Your task to perform on an android device: clear all cookies in the chrome app Image 0: 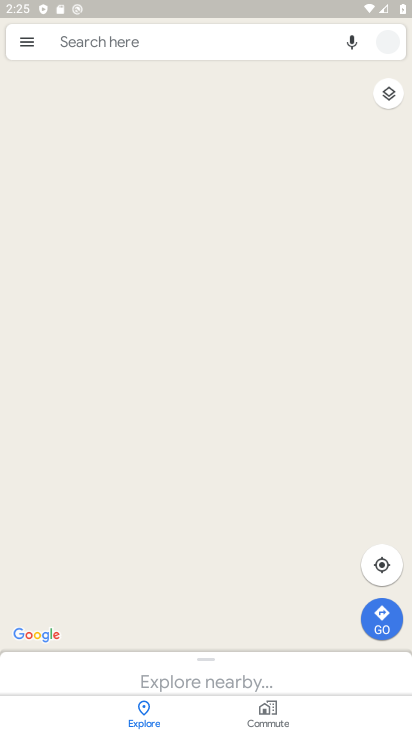
Step 0: drag from (267, 704) to (113, 112)
Your task to perform on an android device: clear all cookies in the chrome app Image 1: 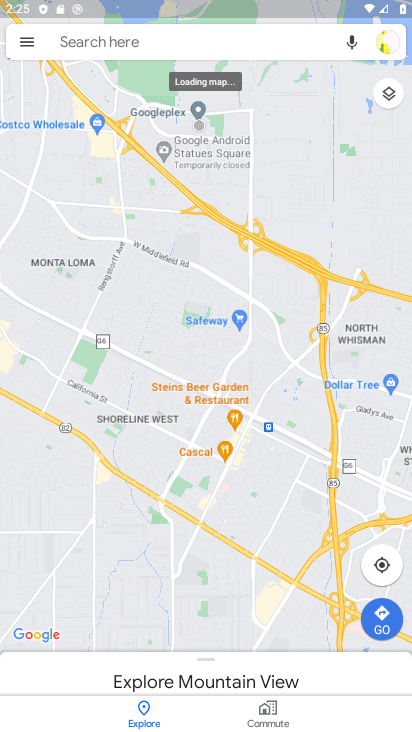
Step 1: click (24, 42)
Your task to perform on an android device: clear all cookies in the chrome app Image 2: 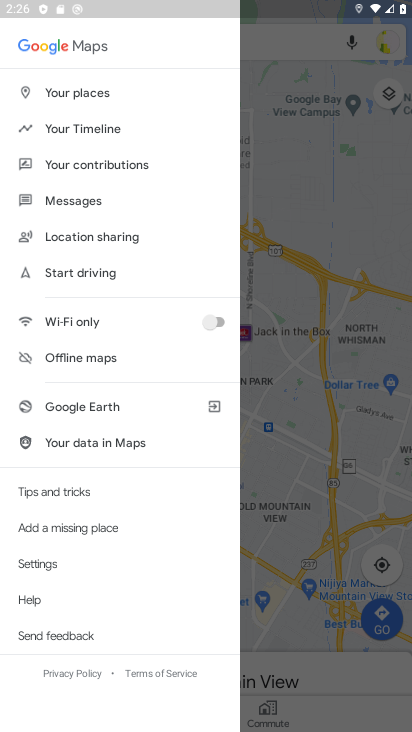
Step 2: click (303, 249)
Your task to perform on an android device: clear all cookies in the chrome app Image 3: 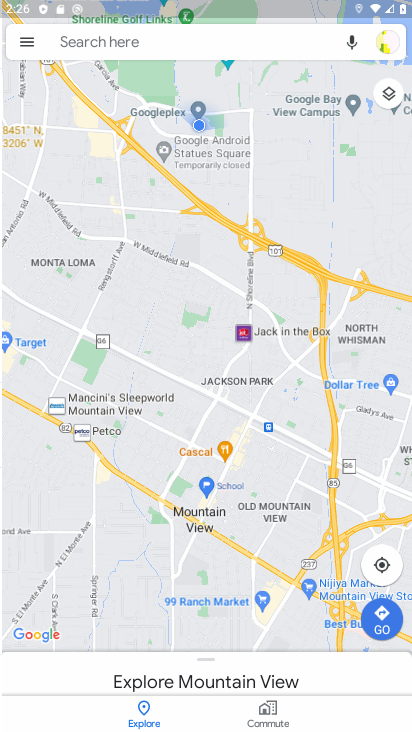
Step 3: click (316, 275)
Your task to perform on an android device: clear all cookies in the chrome app Image 4: 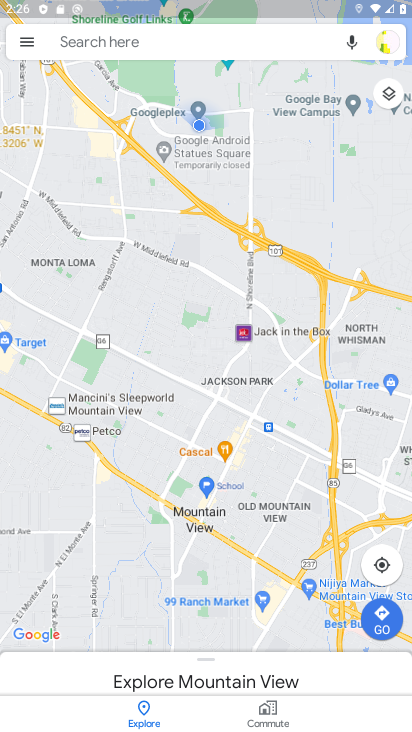
Step 4: press home button
Your task to perform on an android device: clear all cookies in the chrome app Image 5: 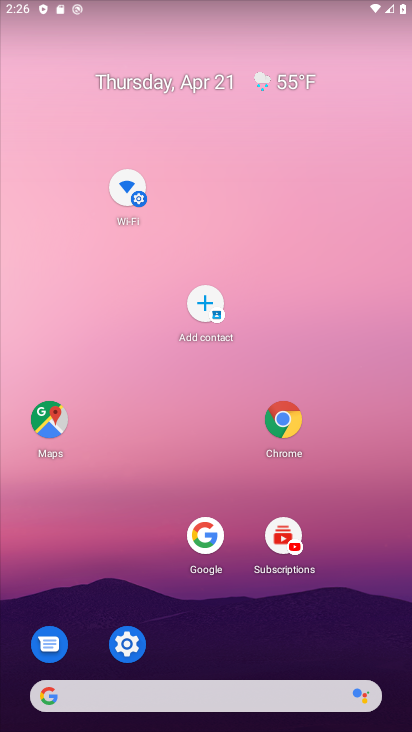
Step 5: drag from (256, 629) to (47, 42)
Your task to perform on an android device: clear all cookies in the chrome app Image 6: 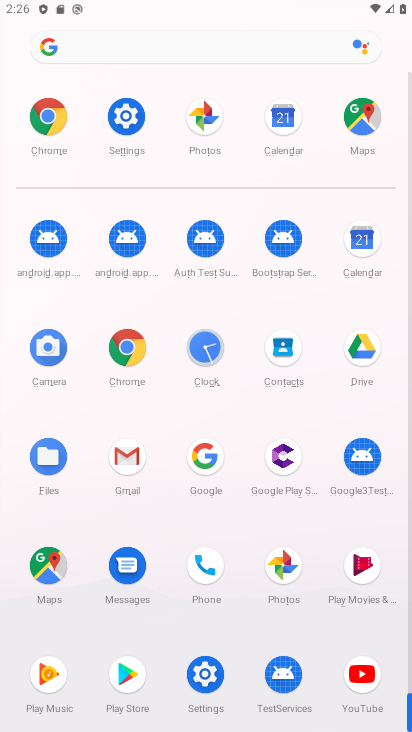
Step 6: click (52, 116)
Your task to perform on an android device: clear all cookies in the chrome app Image 7: 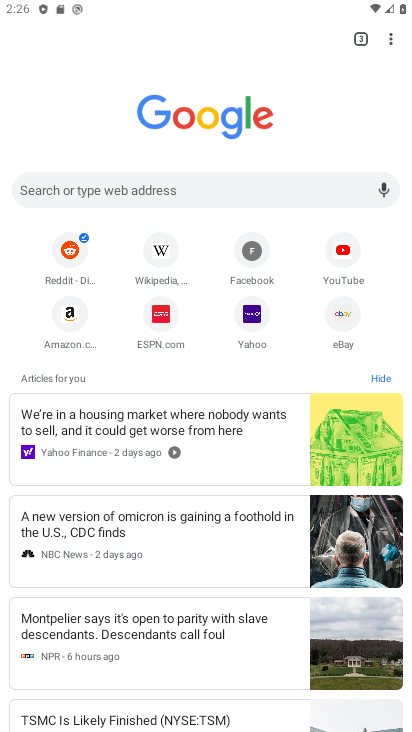
Step 7: drag from (392, 35) to (261, 371)
Your task to perform on an android device: clear all cookies in the chrome app Image 8: 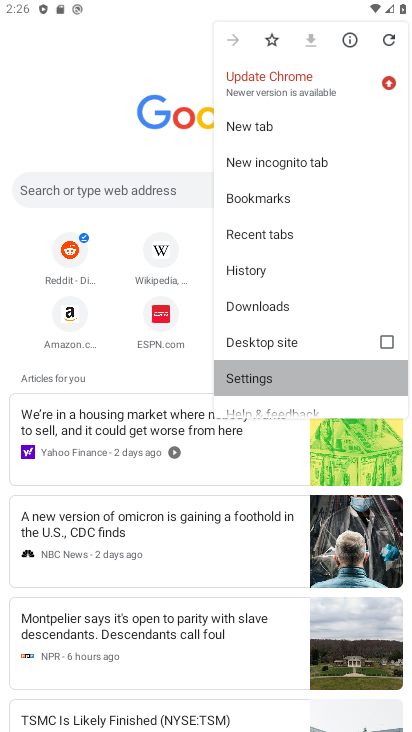
Step 8: click (261, 371)
Your task to perform on an android device: clear all cookies in the chrome app Image 9: 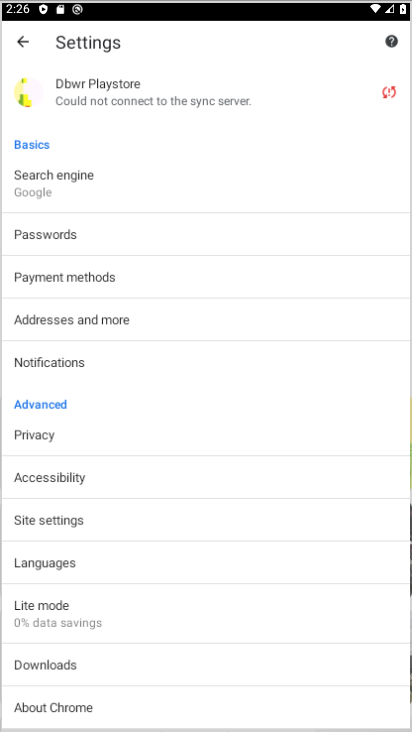
Step 9: click (261, 371)
Your task to perform on an android device: clear all cookies in the chrome app Image 10: 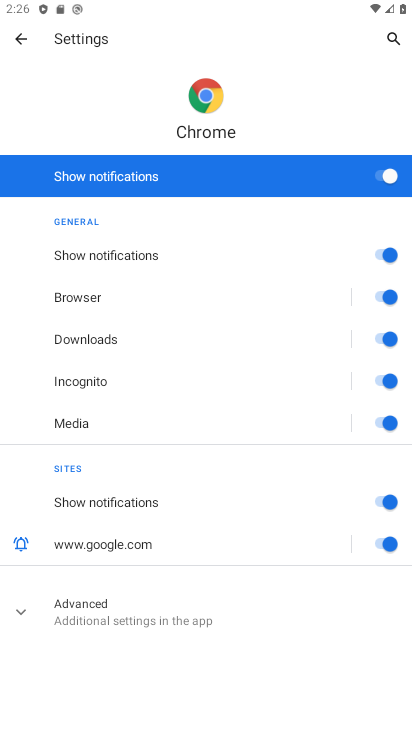
Step 10: click (22, 37)
Your task to perform on an android device: clear all cookies in the chrome app Image 11: 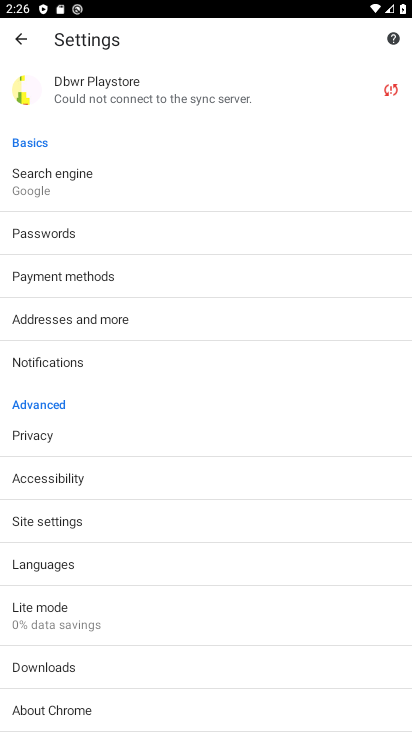
Step 11: click (47, 520)
Your task to perform on an android device: clear all cookies in the chrome app Image 12: 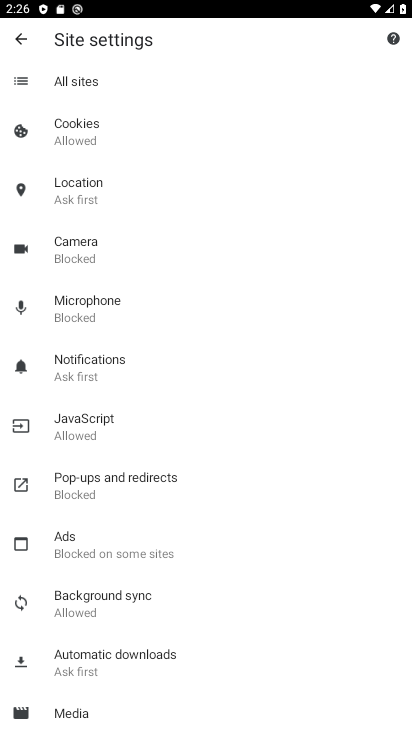
Step 12: click (69, 122)
Your task to perform on an android device: clear all cookies in the chrome app Image 13: 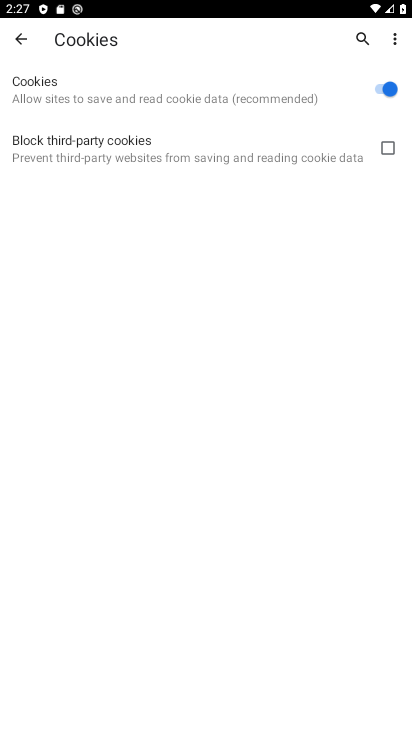
Step 13: click (395, 90)
Your task to perform on an android device: clear all cookies in the chrome app Image 14: 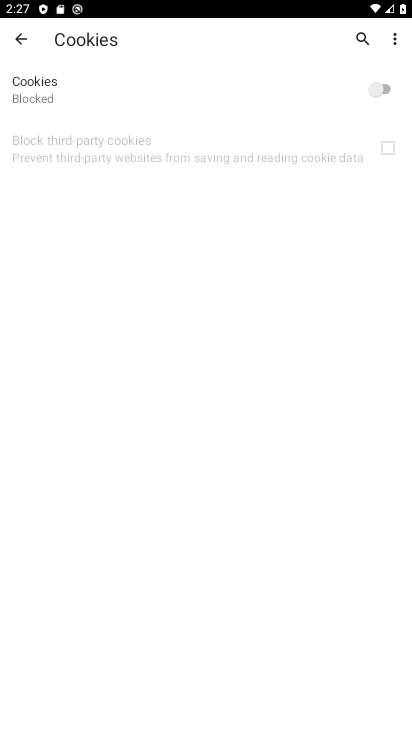
Step 14: task complete